Your task to perform on an android device: toggle improve location accuracy Image 0: 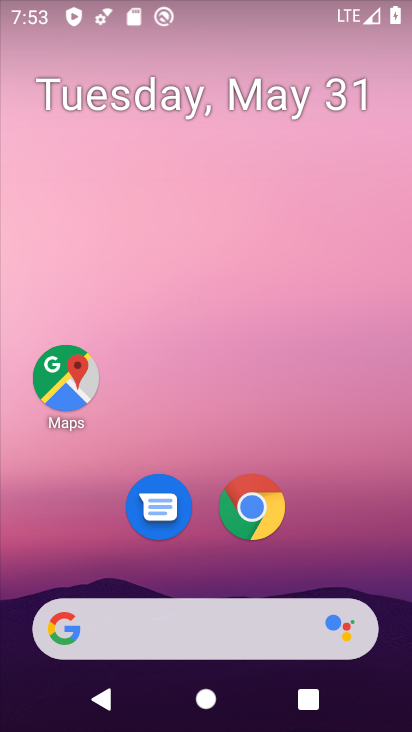
Step 0: drag from (351, 589) to (297, 10)
Your task to perform on an android device: toggle improve location accuracy Image 1: 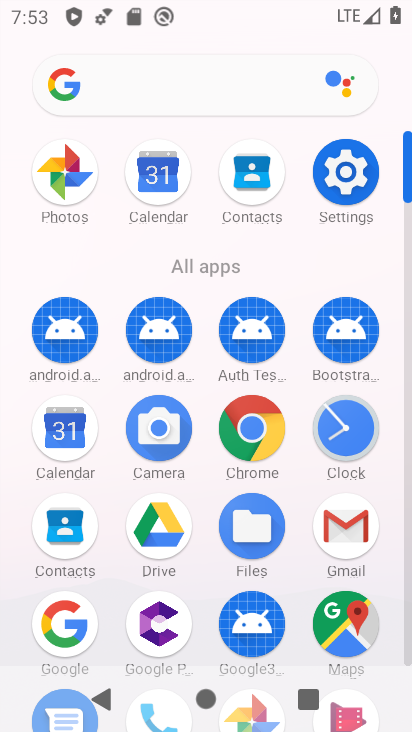
Step 1: click (343, 166)
Your task to perform on an android device: toggle improve location accuracy Image 2: 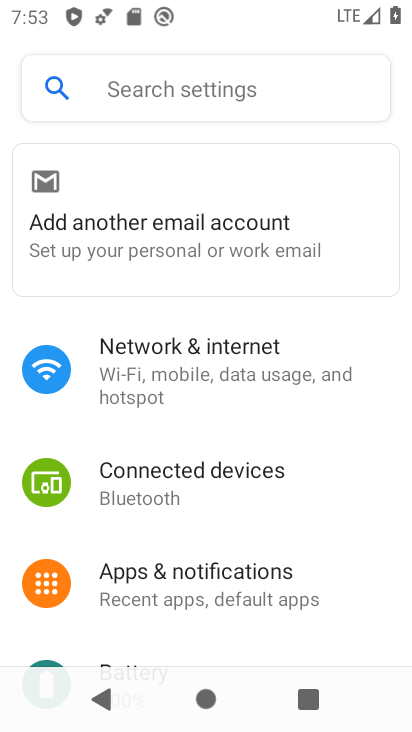
Step 2: drag from (348, 623) to (344, 101)
Your task to perform on an android device: toggle improve location accuracy Image 3: 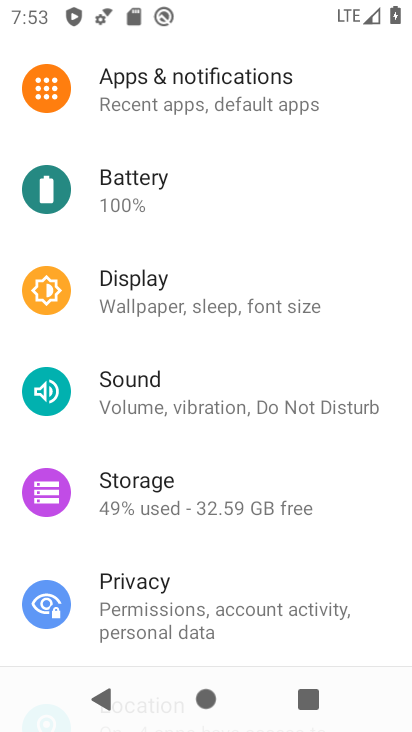
Step 3: drag from (293, 474) to (281, 107)
Your task to perform on an android device: toggle improve location accuracy Image 4: 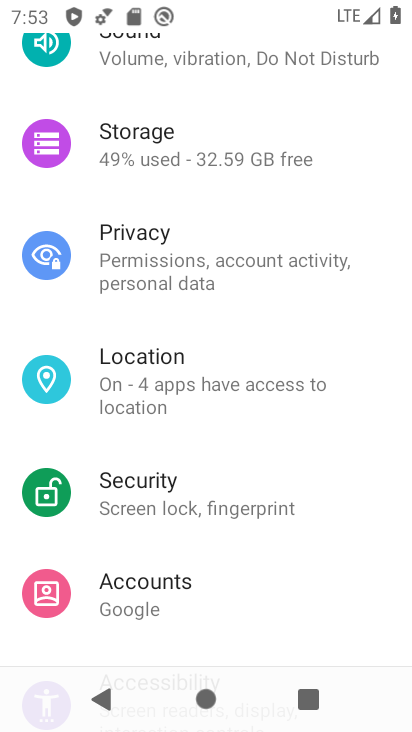
Step 4: click (141, 378)
Your task to perform on an android device: toggle improve location accuracy Image 5: 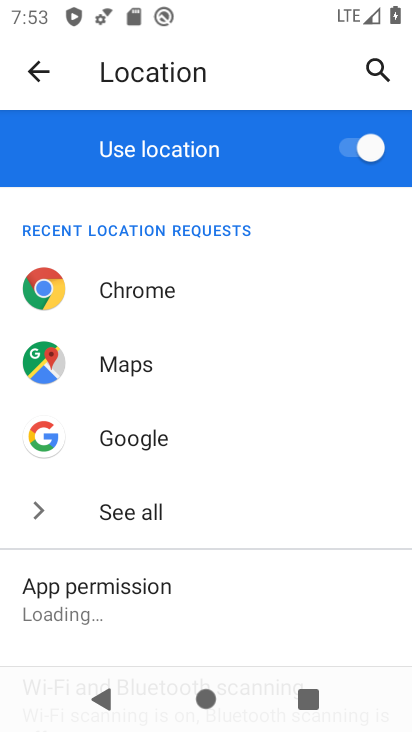
Step 5: drag from (269, 539) to (264, 153)
Your task to perform on an android device: toggle improve location accuracy Image 6: 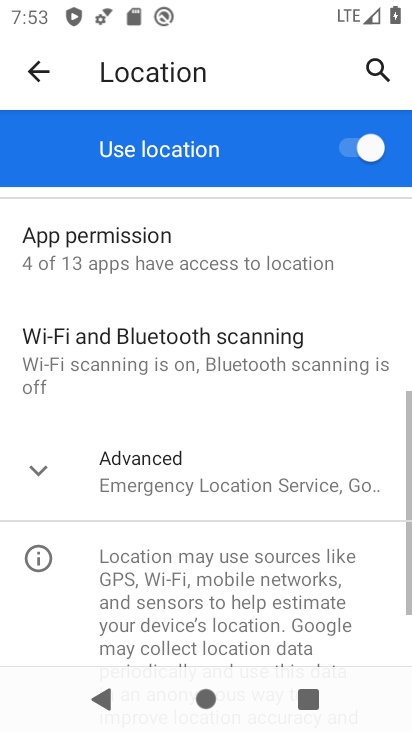
Step 6: click (28, 472)
Your task to perform on an android device: toggle improve location accuracy Image 7: 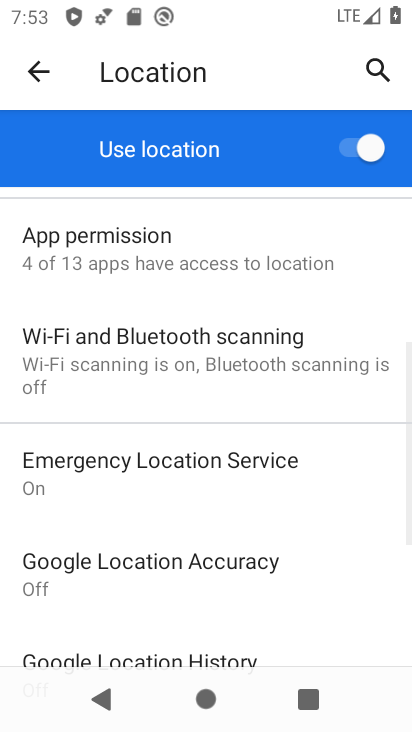
Step 7: click (164, 566)
Your task to perform on an android device: toggle improve location accuracy Image 8: 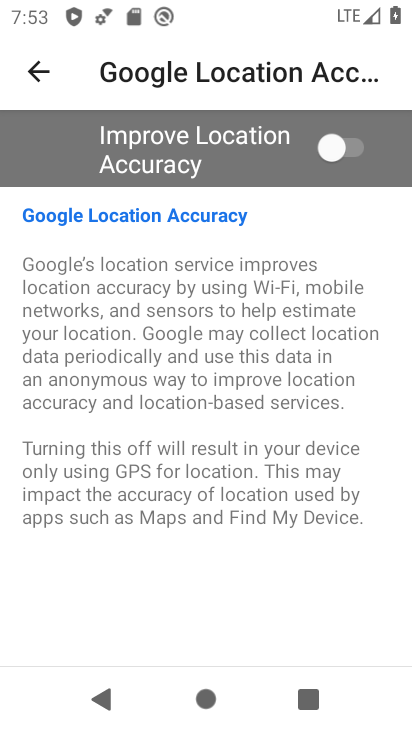
Step 8: click (329, 155)
Your task to perform on an android device: toggle improve location accuracy Image 9: 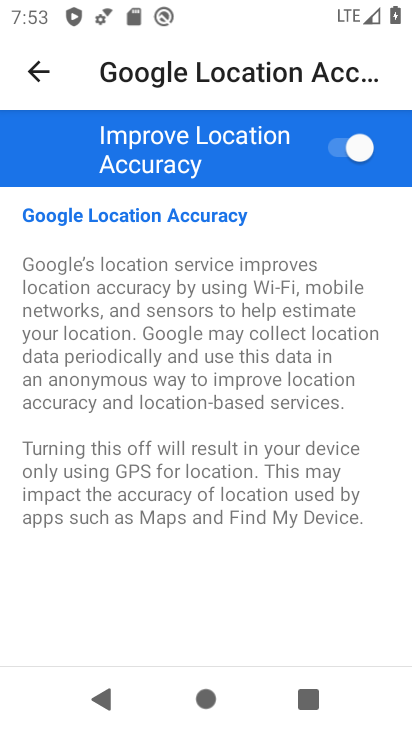
Step 9: task complete